Your task to perform on an android device: add a contact Image 0: 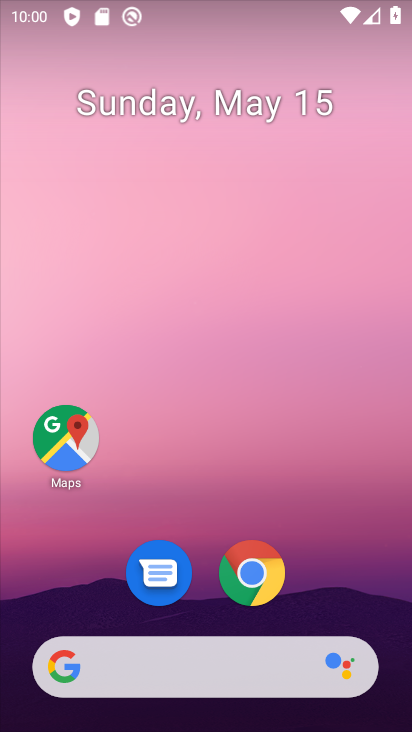
Step 0: drag from (230, 462) to (285, 226)
Your task to perform on an android device: add a contact Image 1: 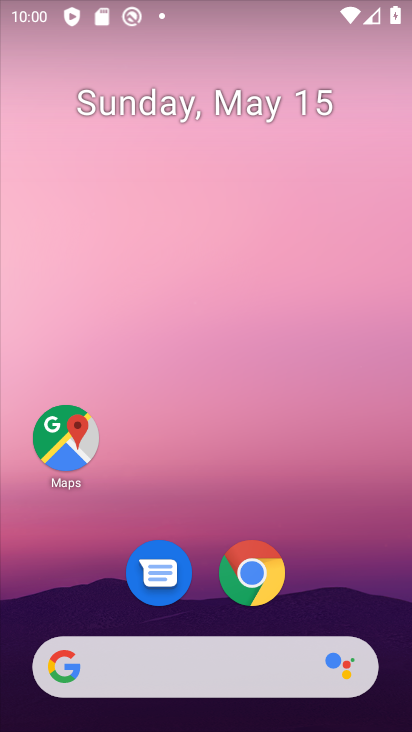
Step 1: drag from (206, 612) to (281, 203)
Your task to perform on an android device: add a contact Image 2: 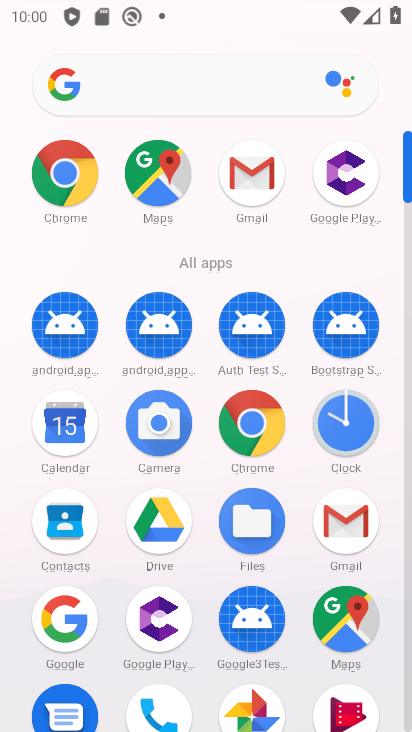
Step 2: click (64, 525)
Your task to perform on an android device: add a contact Image 3: 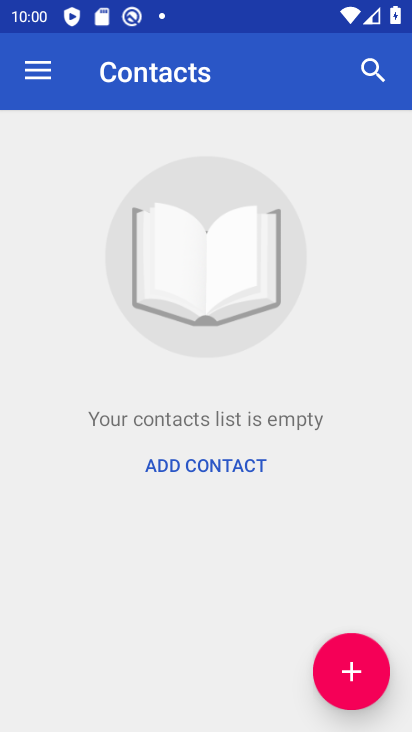
Step 3: click (344, 666)
Your task to perform on an android device: add a contact Image 4: 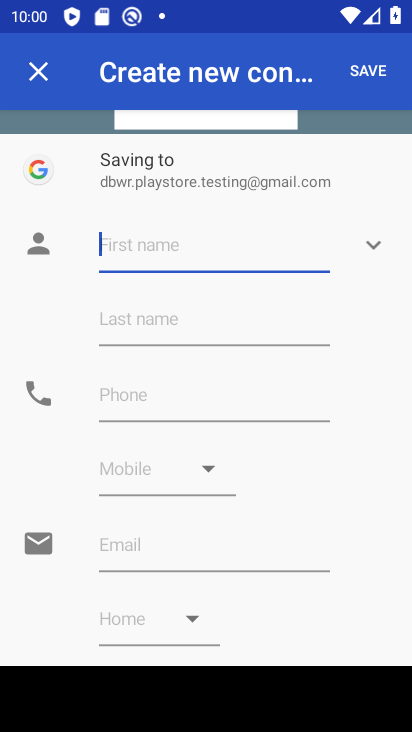
Step 4: type "fdvf"
Your task to perform on an android device: add a contact Image 5: 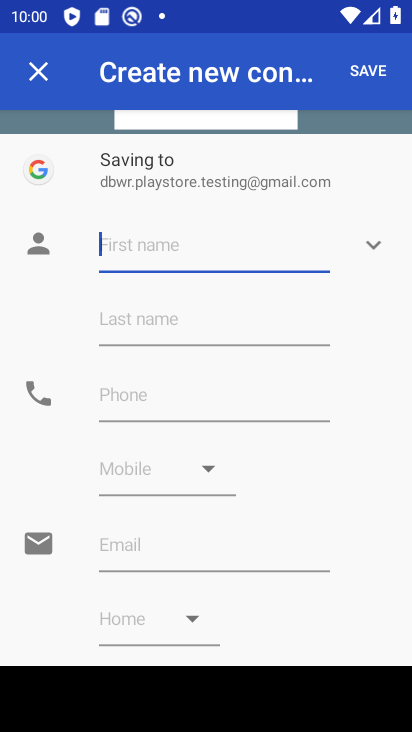
Step 5: click (179, 332)
Your task to perform on an android device: add a contact Image 6: 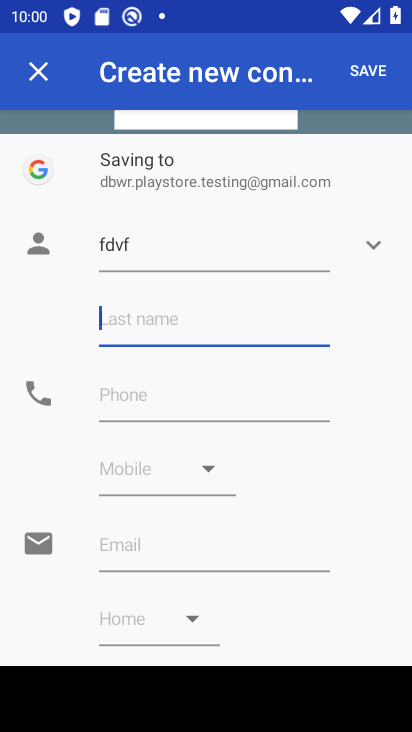
Step 6: type "fvfv"
Your task to perform on an android device: add a contact Image 7: 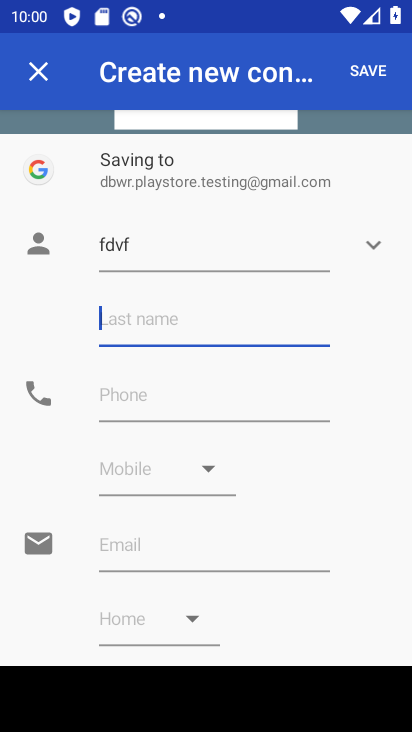
Step 7: click (142, 397)
Your task to perform on an android device: add a contact Image 8: 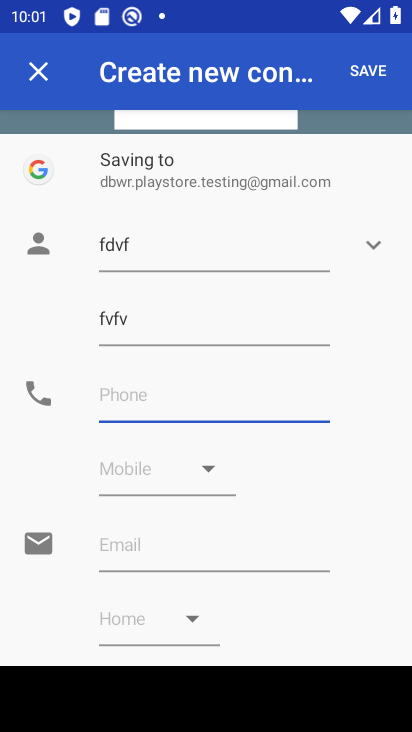
Step 8: type "44455"
Your task to perform on an android device: add a contact Image 9: 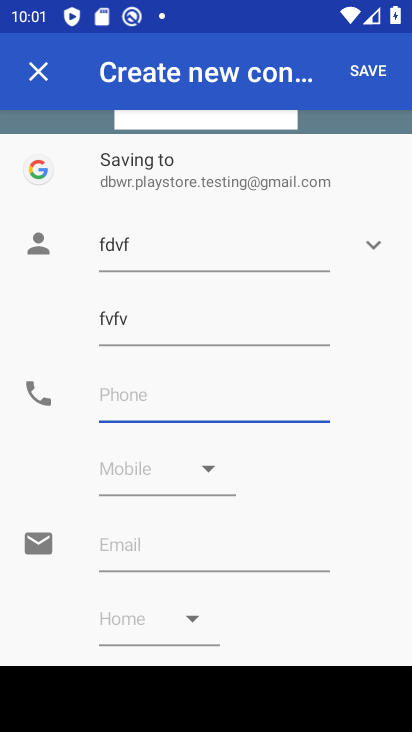
Step 9: click (132, 458)
Your task to perform on an android device: add a contact Image 10: 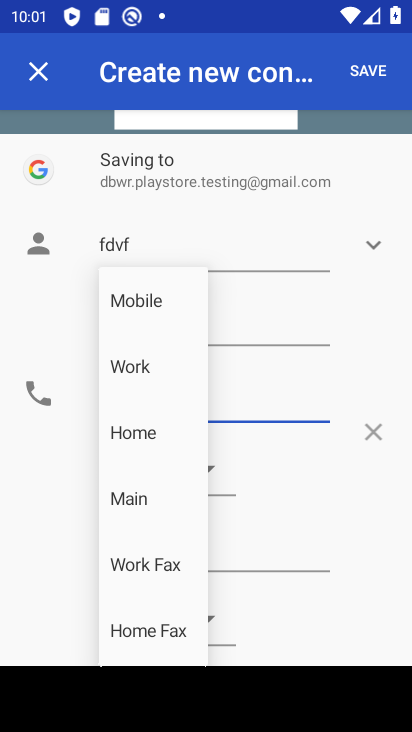
Step 10: click (382, 62)
Your task to perform on an android device: add a contact Image 11: 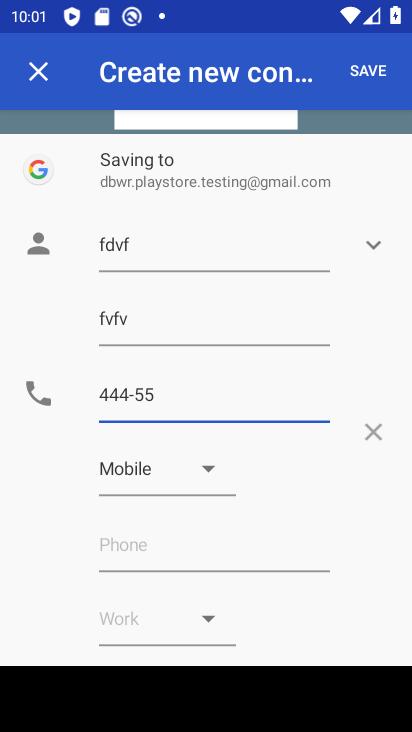
Step 11: click (365, 69)
Your task to perform on an android device: add a contact Image 12: 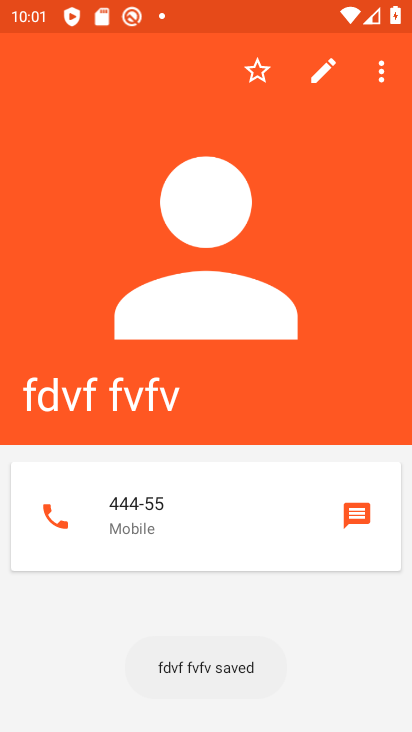
Step 12: task complete